Your task to perform on an android device: Go to battery settings Image 0: 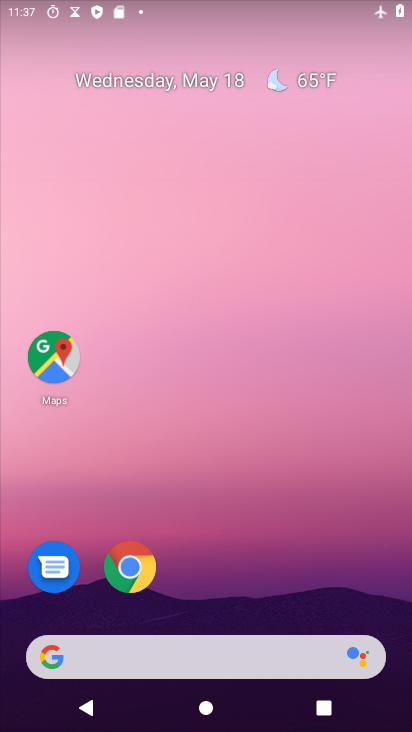
Step 0: drag from (260, 600) to (235, 175)
Your task to perform on an android device: Go to battery settings Image 1: 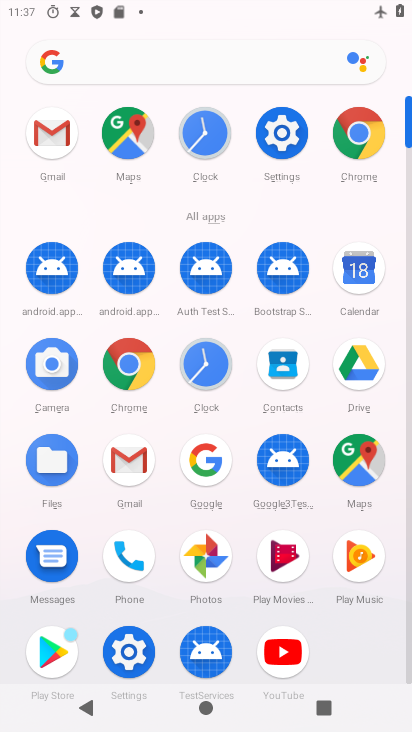
Step 1: click (284, 134)
Your task to perform on an android device: Go to battery settings Image 2: 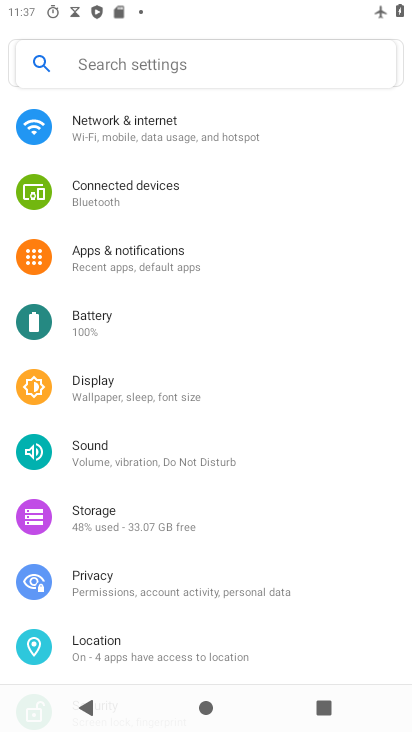
Step 2: click (130, 329)
Your task to perform on an android device: Go to battery settings Image 3: 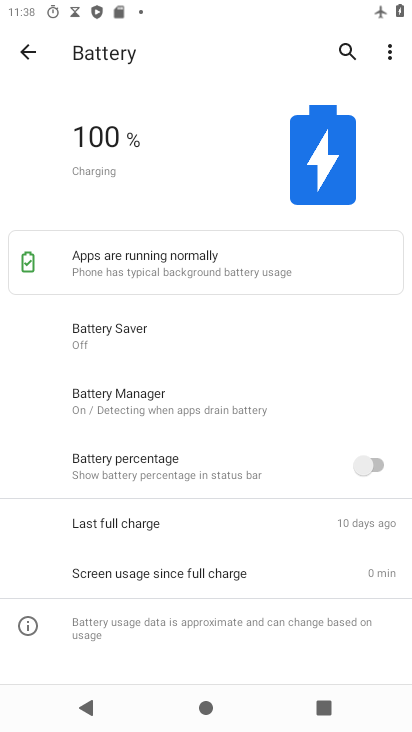
Step 3: task complete